Your task to perform on an android device: change your default location settings in chrome Image 0: 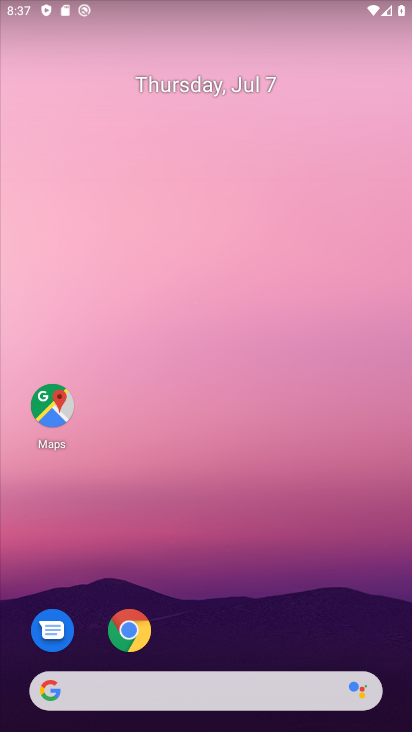
Step 0: drag from (188, 624) to (169, 187)
Your task to perform on an android device: change your default location settings in chrome Image 1: 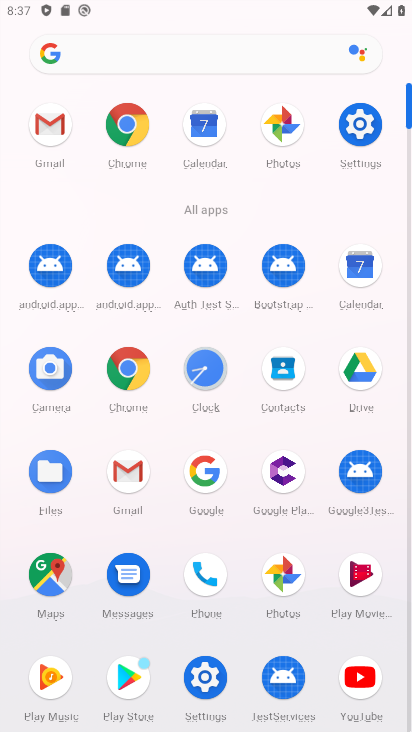
Step 1: click (129, 138)
Your task to perform on an android device: change your default location settings in chrome Image 2: 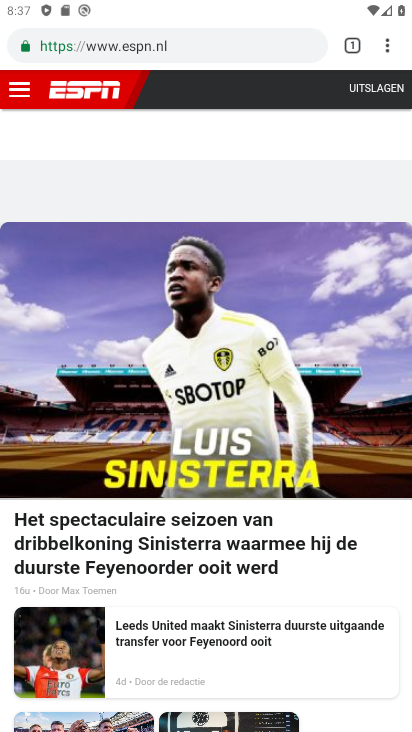
Step 2: click (388, 54)
Your task to perform on an android device: change your default location settings in chrome Image 3: 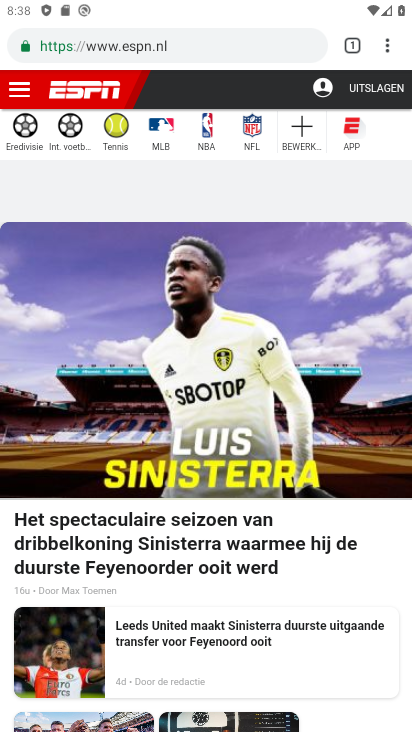
Step 3: click (379, 40)
Your task to perform on an android device: change your default location settings in chrome Image 4: 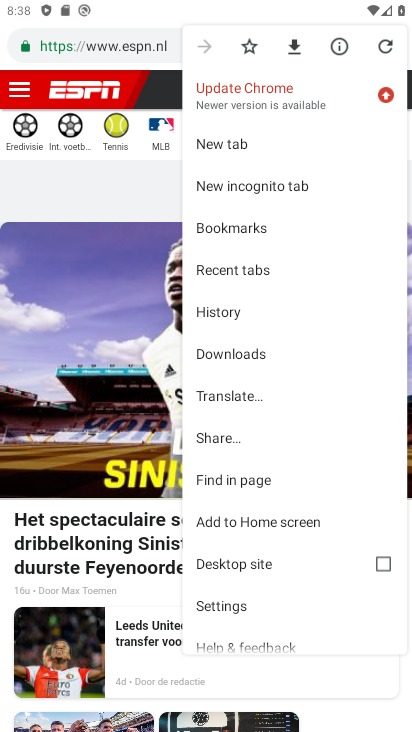
Step 4: click (233, 608)
Your task to perform on an android device: change your default location settings in chrome Image 5: 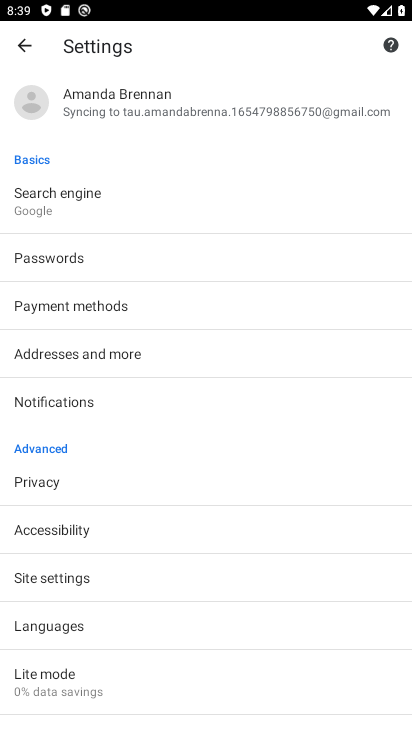
Step 5: drag from (150, 648) to (222, 312)
Your task to perform on an android device: change your default location settings in chrome Image 6: 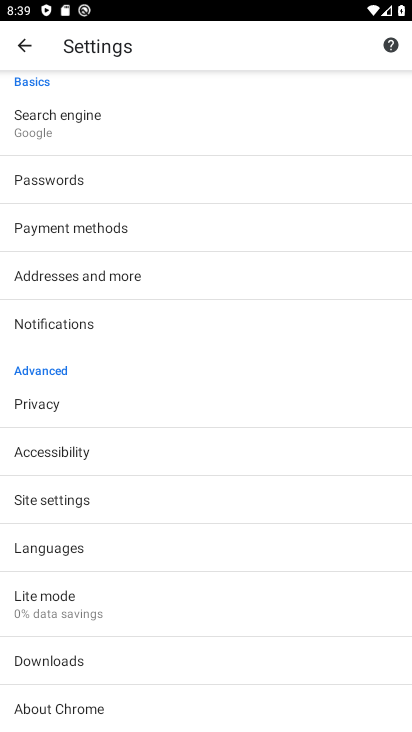
Step 6: click (108, 505)
Your task to perform on an android device: change your default location settings in chrome Image 7: 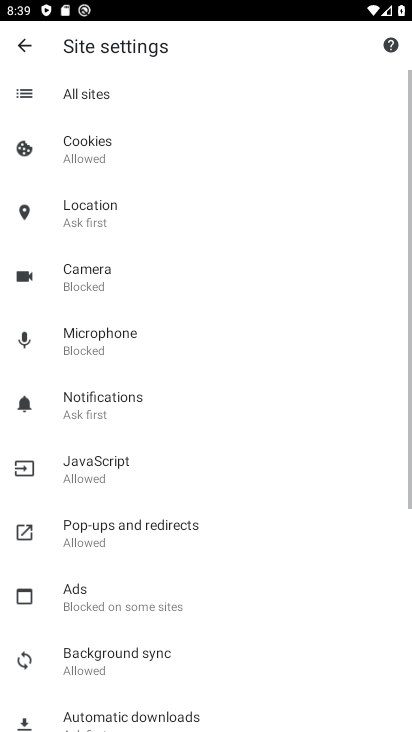
Step 7: click (203, 218)
Your task to perform on an android device: change your default location settings in chrome Image 8: 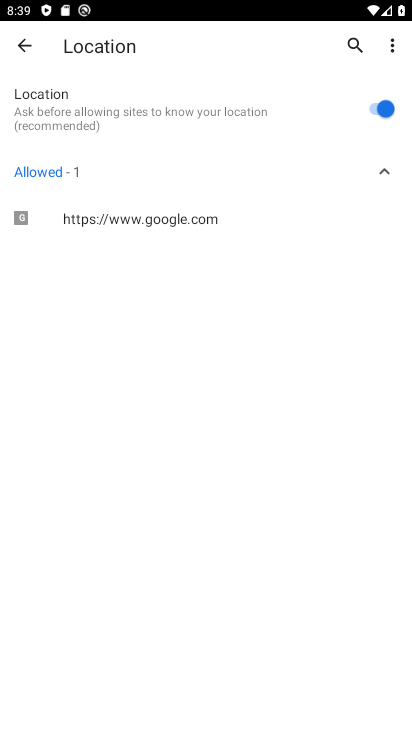
Step 8: click (389, 101)
Your task to perform on an android device: change your default location settings in chrome Image 9: 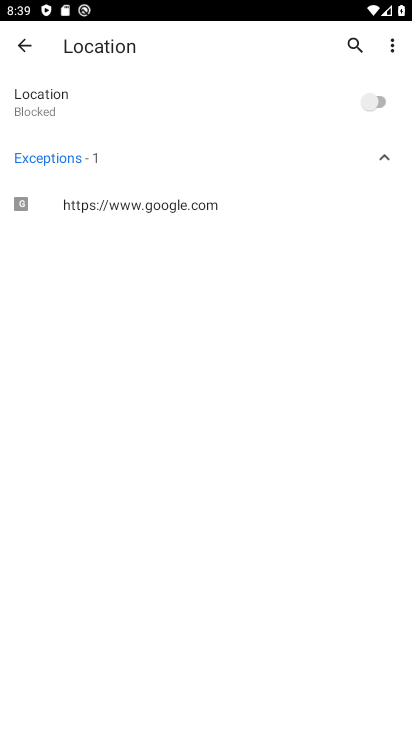
Step 9: task complete